Your task to perform on an android device: open wifi settings Image 0: 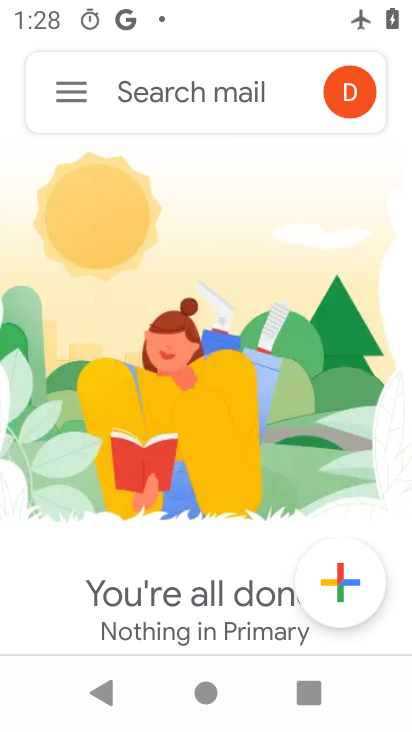
Step 0: press home button
Your task to perform on an android device: open wifi settings Image 1: 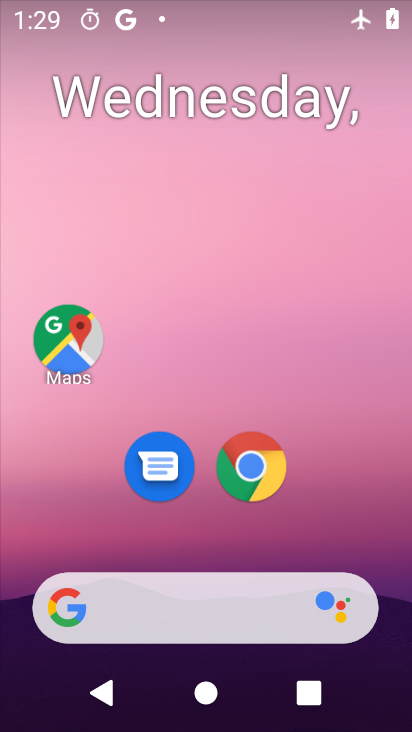
Step 1: drag from (296, 464) to (259, 45)
Your task to perform on an android device: open wifi settings Image 2: 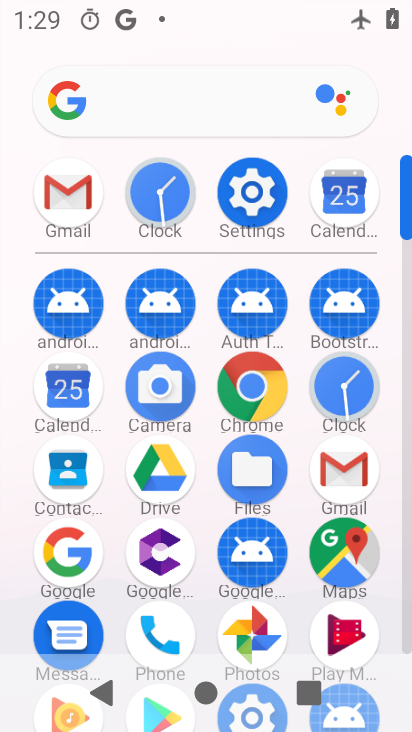
Step 2: click (244, 188)
Your task to perform on an android device: open wifi settings Image 3: 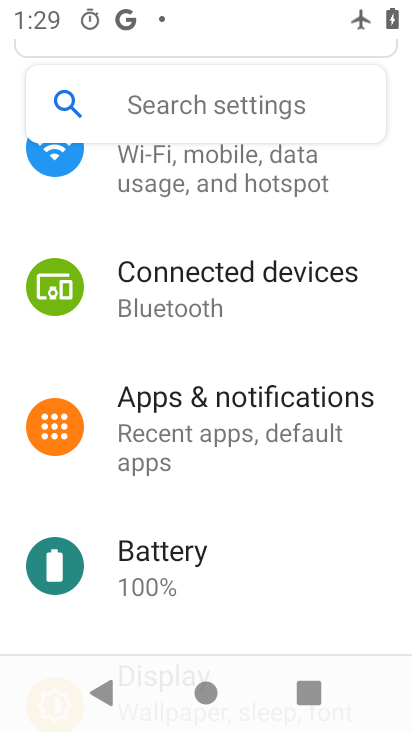
Step 3: click (233, 226)
Your task to perform on an android device: open wifi settings Image 4: 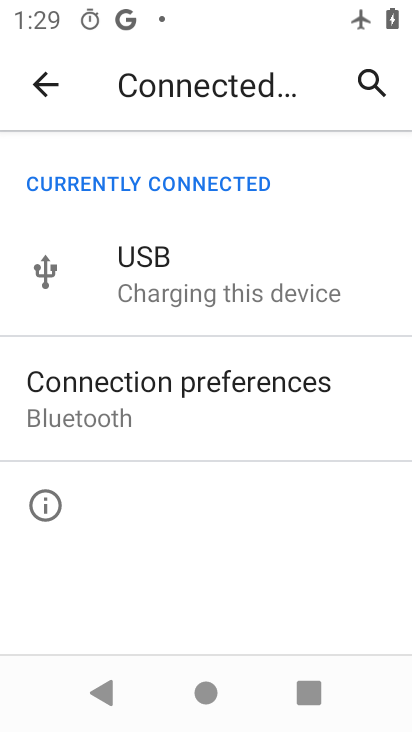
Step 4: press back button
Your task to perform on an android device: open wifi settings Image 5: 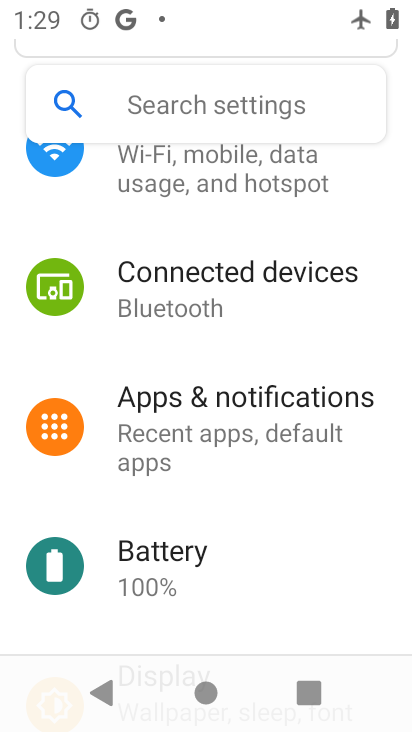
Step 5: click (221, 190)
Your task to perform on an android device: open wifi settings Image 6: 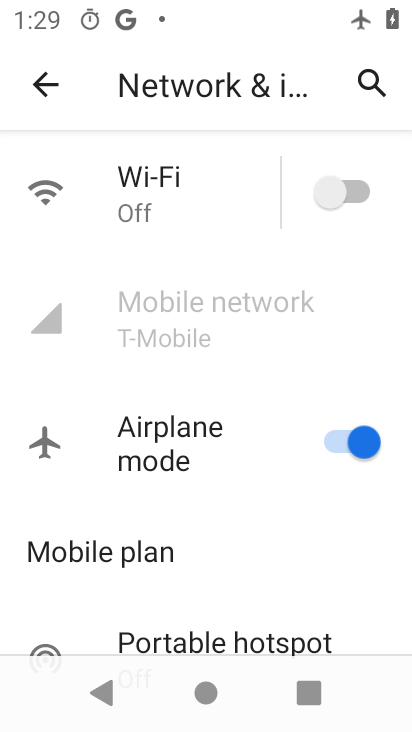
Step 6: task complete